Your task to perform on an android device: turn smart compose on in the gmail app Image 0: 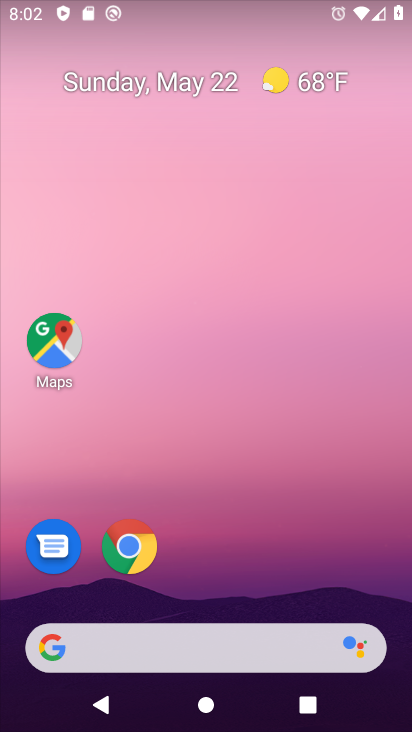
Step 0: drag from (241, 356) to (214, 46)
Your task to perform on an android device: turn smart compose on in the gmail app Image 1: 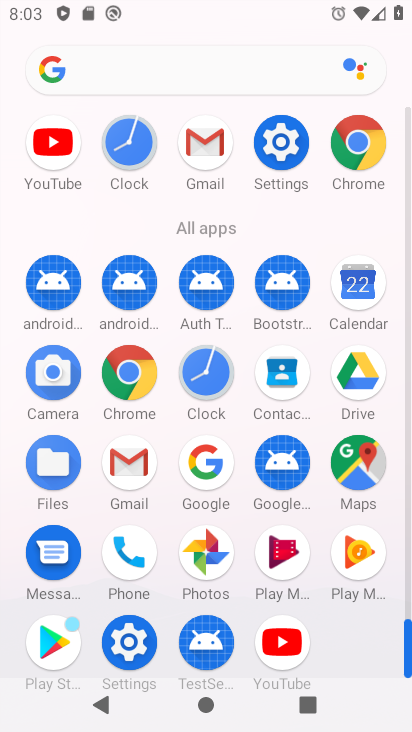
Step 1: click (134, 473)
Your task to perform on an android device: turn smart compose on in the gmail app Image 2: 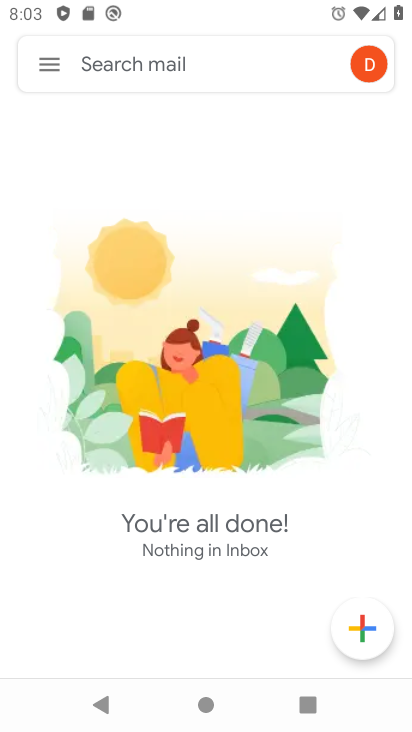
Step 2: click (52, 63)
Your task to perform on an android device: turn smart compose on in the gmail app Image 3: 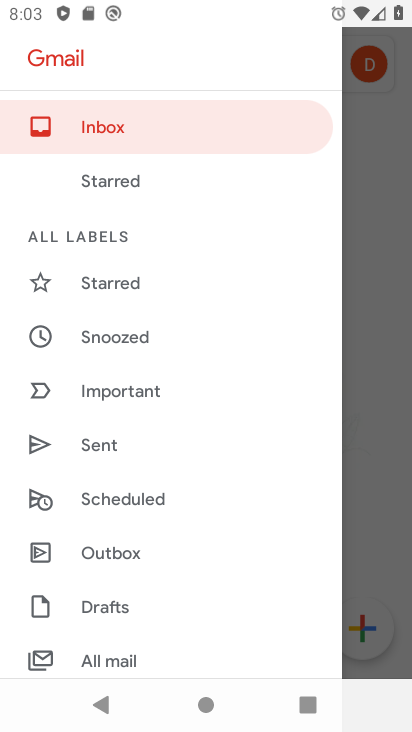
Step 3: drag from (158, 578) to (171, 209)
Your task to perform on an android device: turn smart compose on in the gmail app Image 4: 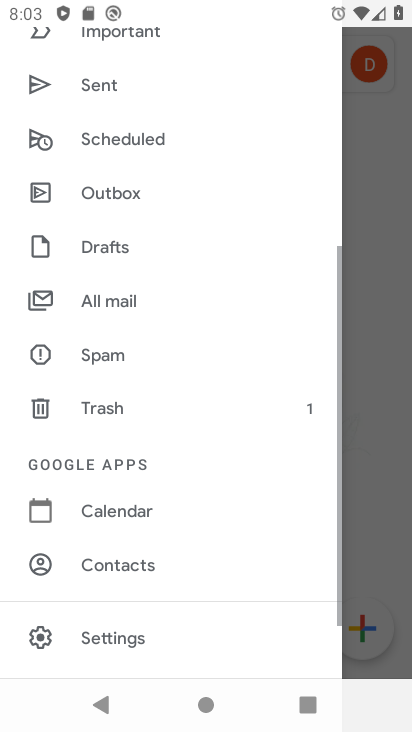
Step 4: drag from (155, 512) to (158, 113)
Your task to perform on an android device: turn smart compose on in the gmail app Image 5: 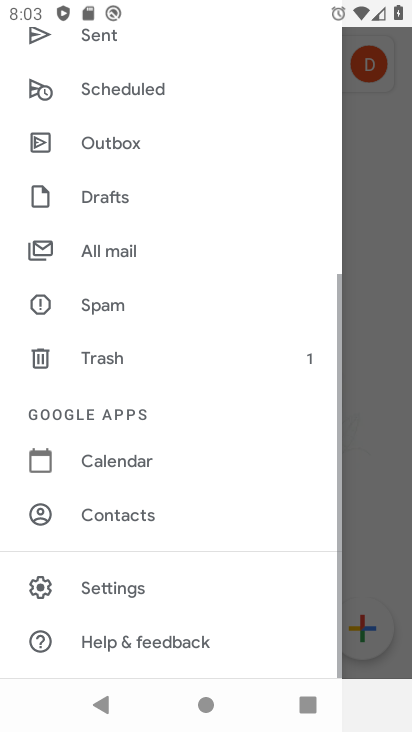
Step 5: click (110, 590)
Your task to perform on an android device: turn smart compose on in the gmail app Image 6: 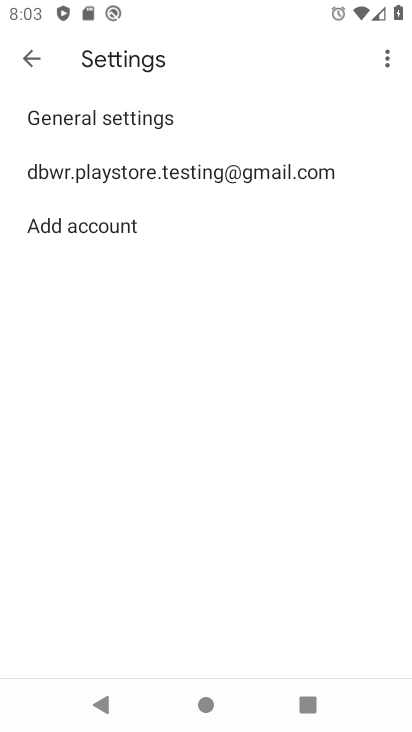
Step 6: click (142, 155)
Your task to perform on an android device: turn smart compose on in the gmail app Image 7: 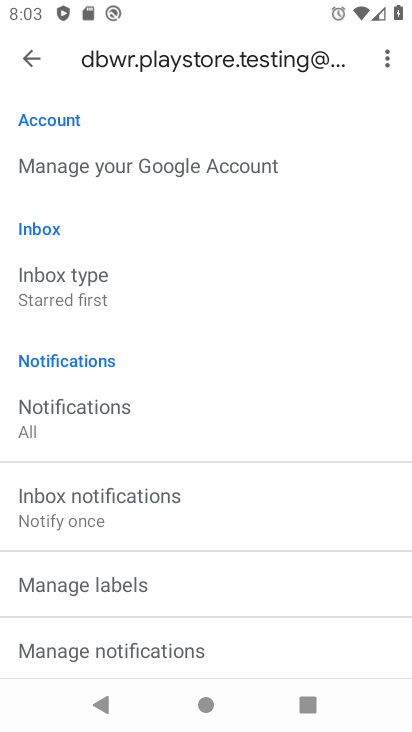
Step 7: drag from (104, 478) to (123, 168)
Your task to perform on an android device: turn smart compose on in the gmail app Image 8: 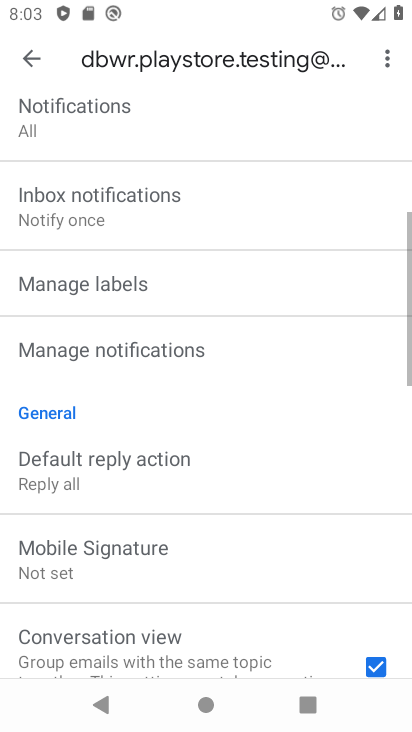
Step 8: drag from (120, 444) to (120, 177)
Your task to perform on an android device: turn smart compose on in the gmail app Image 9: 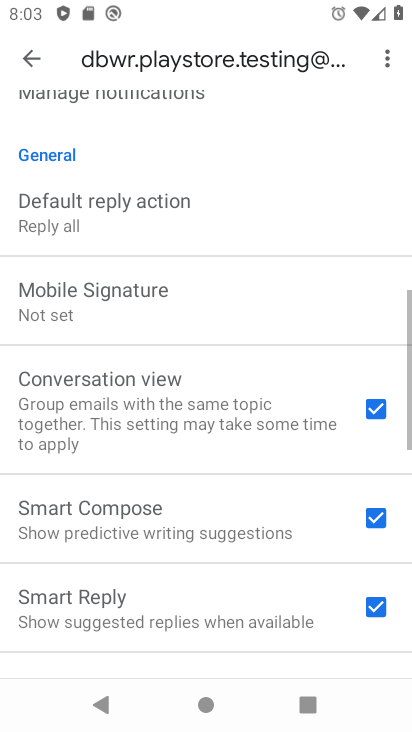
Step 9: click (96, 514)
Your task to perform on an android device: turn smart compose on in the gmail app Image 10: 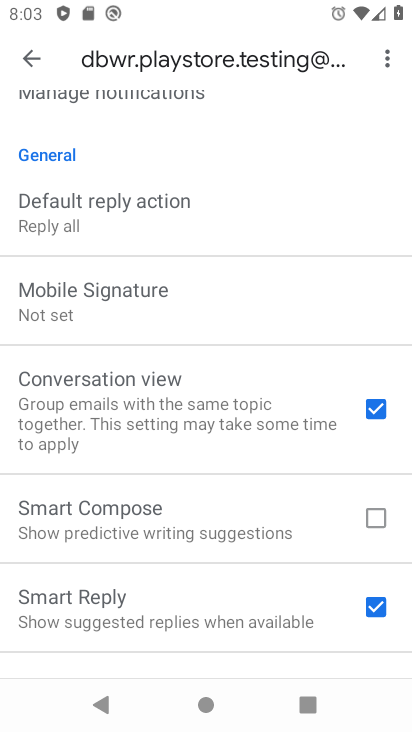
Step 10: click (380, 513)
Your task to perform on an android device: turn smart compose on in the gmail app Image 11: 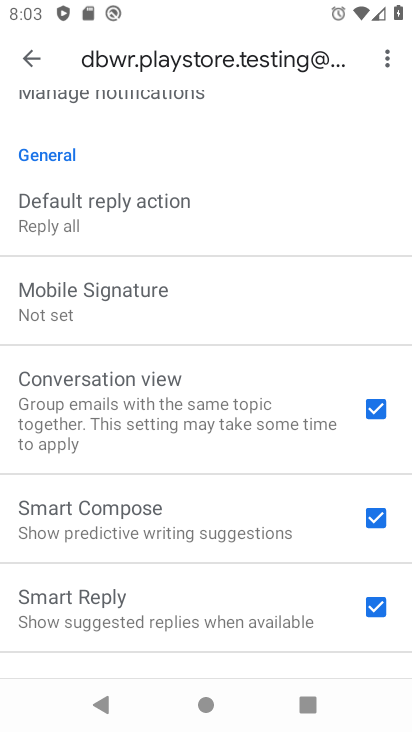
Step 11: task complete